Your task to perform on an android device: turn pop-ups on in chrome Image 0: 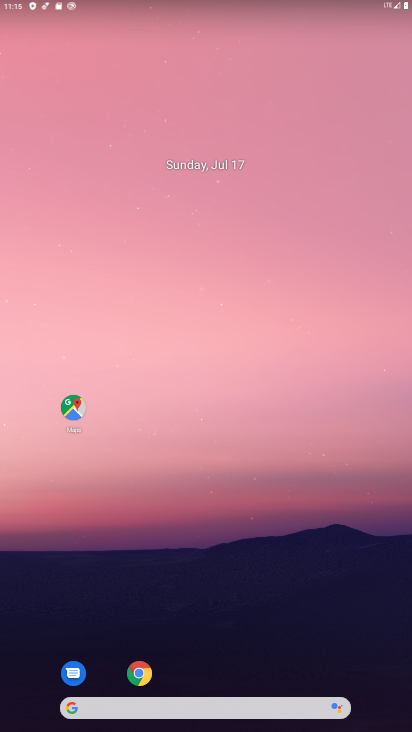
Step 0: click (136, 672)
Your task to perform on an android device: turn pop-ups on in chrome Image 1: 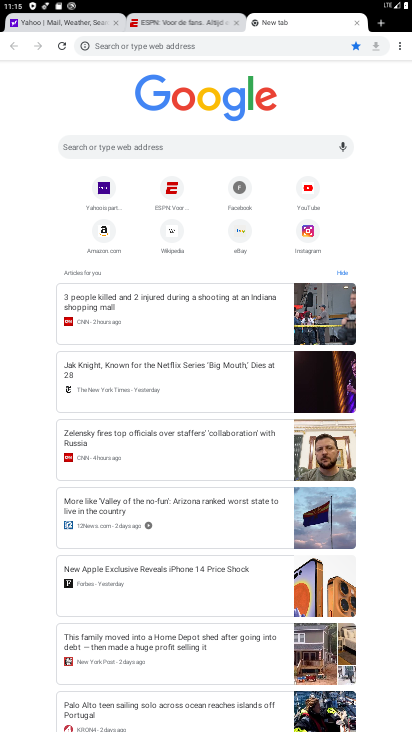
Step 1: click (403, 49)
Your task to perform on an android device: turn pop-ups on in chrome Image 2: 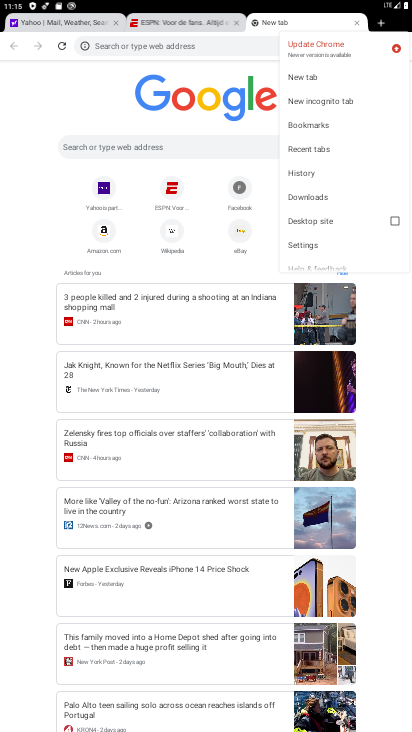
Step 2: click (314, 241)
Your task to perform on an android device: turn pop-ups on in chrome Image 3: 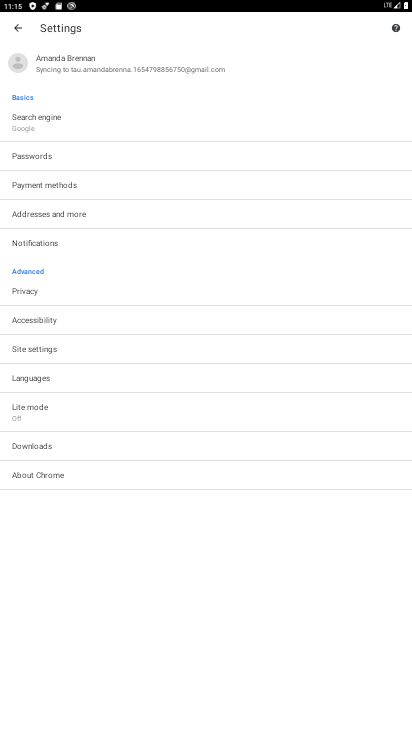
Step 3: click (37, 349)
Your task to perform on an android device: turn pop-ups on in chrome Image 4: 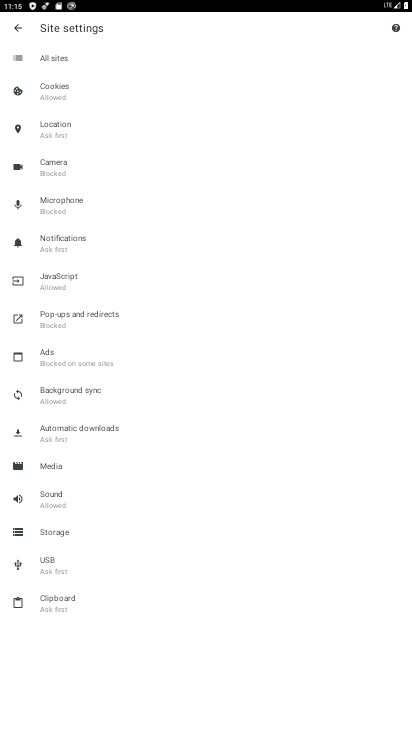
Step 4: click (99, 314)
Your task to perform on an android device: turn pop-ups on in chrome Image 5: 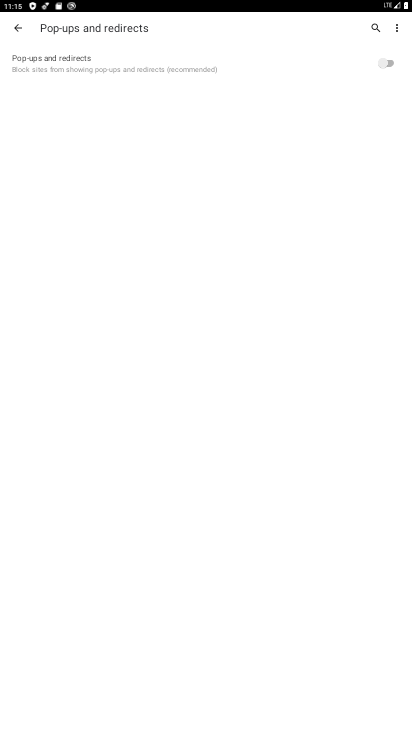
Step 5: click (390, 55)
Your task to perform on an android device: turn pop-ups on in chrome Image 6: 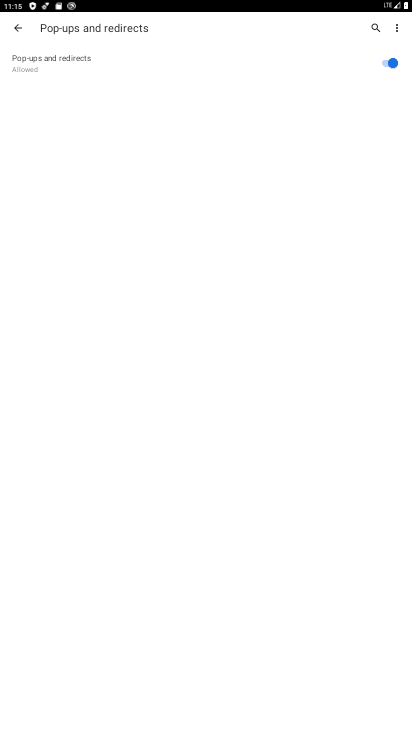
Step 6: task complete